Your task to perform on an android device: Clear the cart on target.com. Search for "razer blade" on target.com, select the first entry, and add it to the cart. Image 0: 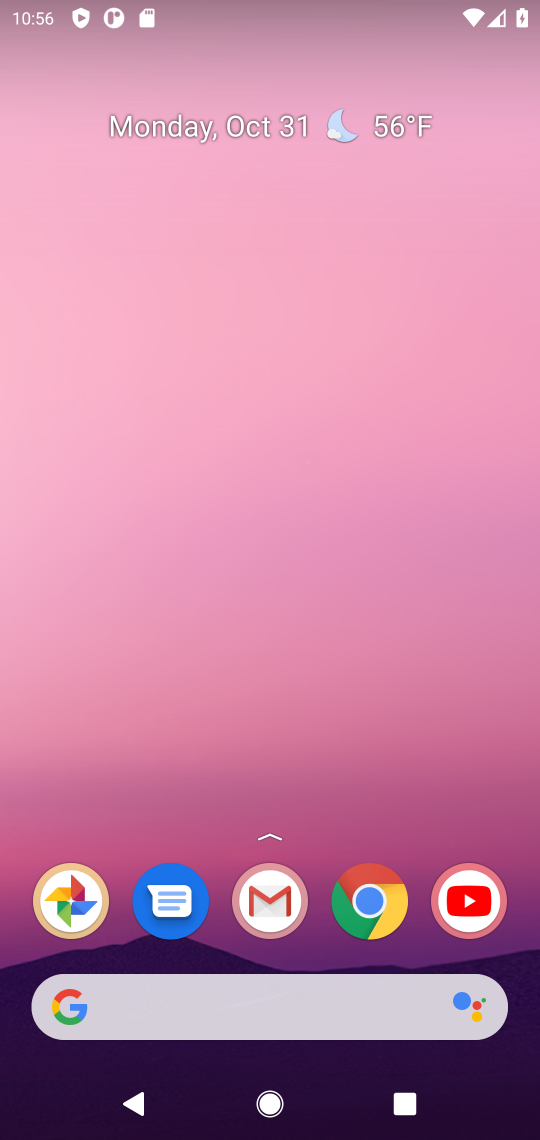
Step 0: drag from (154, 476) to (156, 177)
Your task to perform on an android device: Clear the cart on target.com. Search for "razer blade" on target.com, select the first entry, and add it to the cart. Image 1: 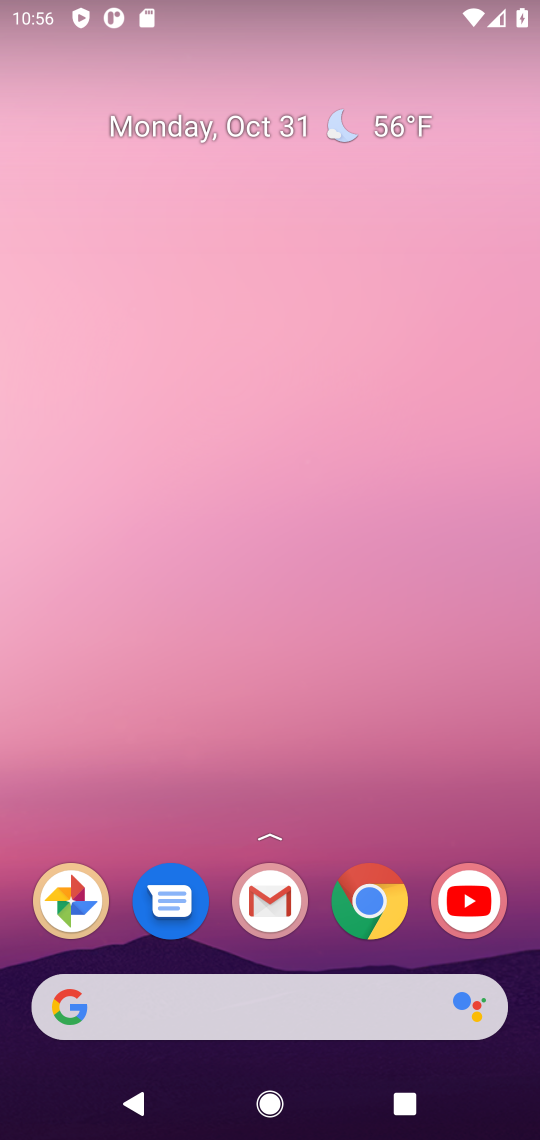
Step 1: drag from (216, 777) to (216, 202)
Your task to perform on an android device: Clear the cart on target.com. Search for "razer blade" on target.com, select the first entry, and add it to the cart. Image 2: 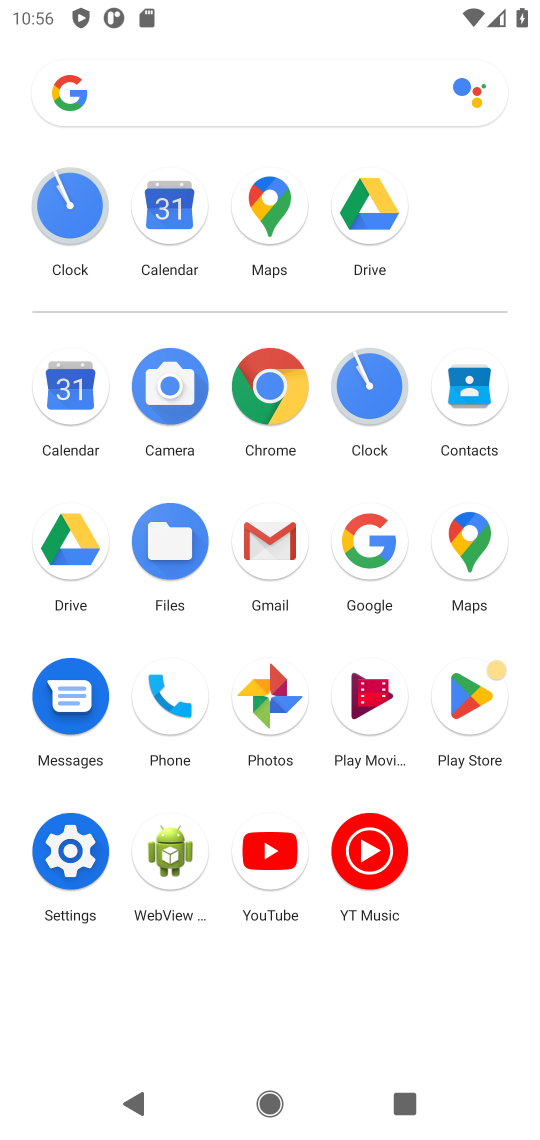
Step 2: click (362, 534)
Your task to perform on an android device: Clear the cart on target.com. Search for "razer blade" on target.com, select the first entry, and add it to the cart. Image 3: 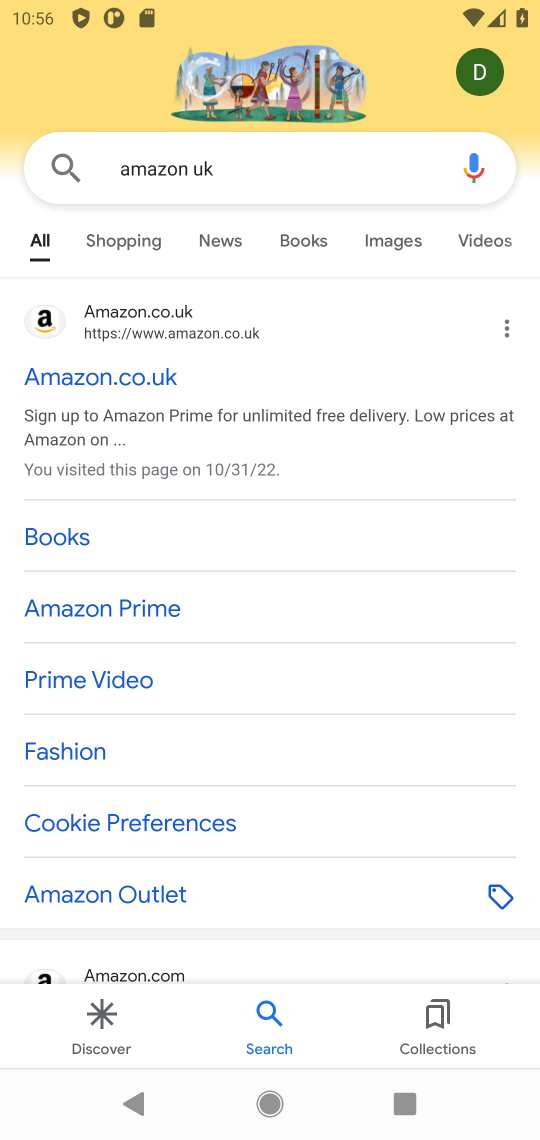
Step 3: click (313, 163)
Your task to perform on an android device: Clear the cart on target.com. Search for "razer blade" on target.com, select the first entry, and add it to the cart. Image 4: 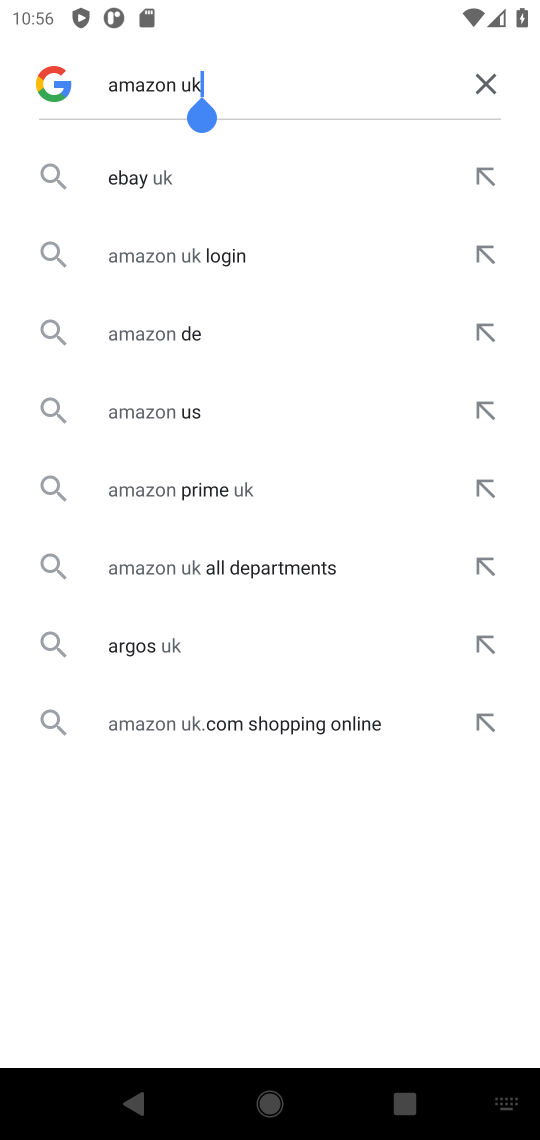
Step 4: click (484, 76)
Your task to perform on an android device: Clear the cart on target.com. Search for "razer blade" on target.com, select the first entry, and add it to the cart. Image 5: 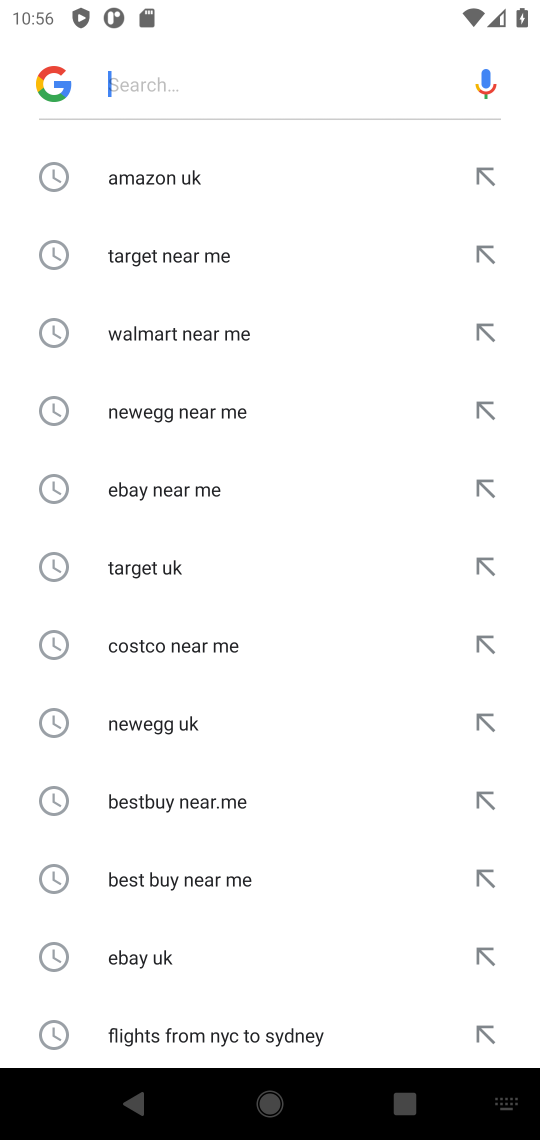
Step 5: click (202, 86)
Your task to perform on an android device: Clear the cart on target.com. Search for "razer blade" on target.com, select the first entry, and add it to the cart. Image 6: 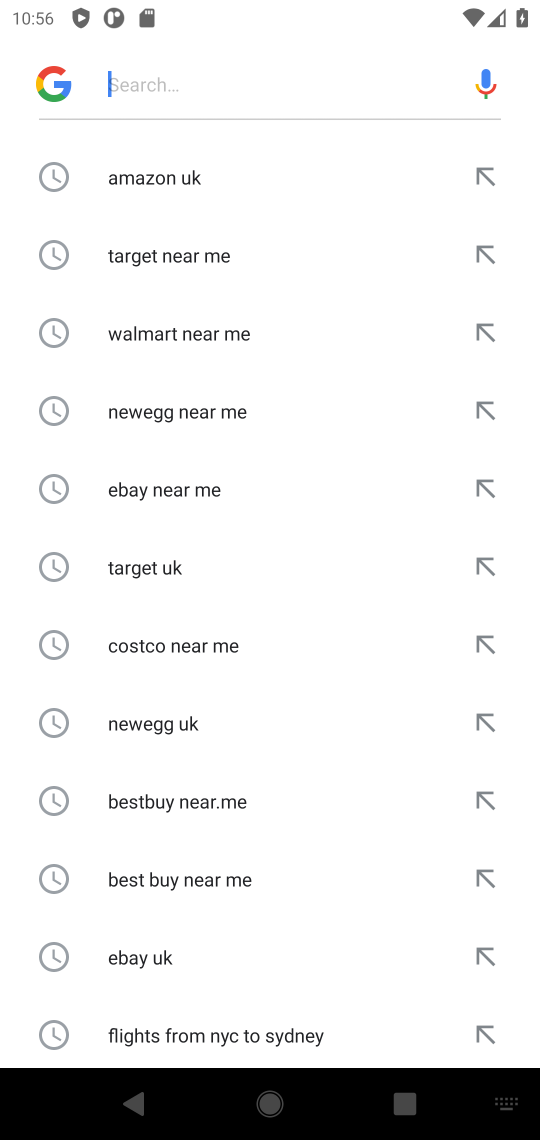
Step 6: type "target "
Your task to perform on an android device: Clear the cart on target.com. Search for "razer blade" on target.com, select the first entry, and add it to the cart. Image 7: 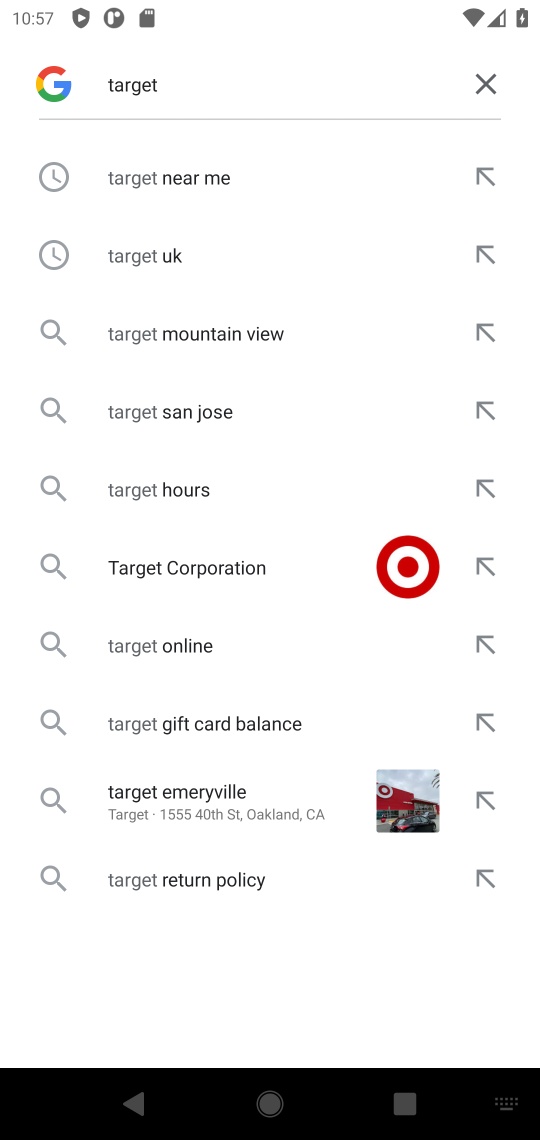
Step 7: click (141, 169)
Your task to perform on an android device: Clear the cart on target.com. Search for "razer blade" on target.com, select the first entry, and add it to the cart. Image 8: 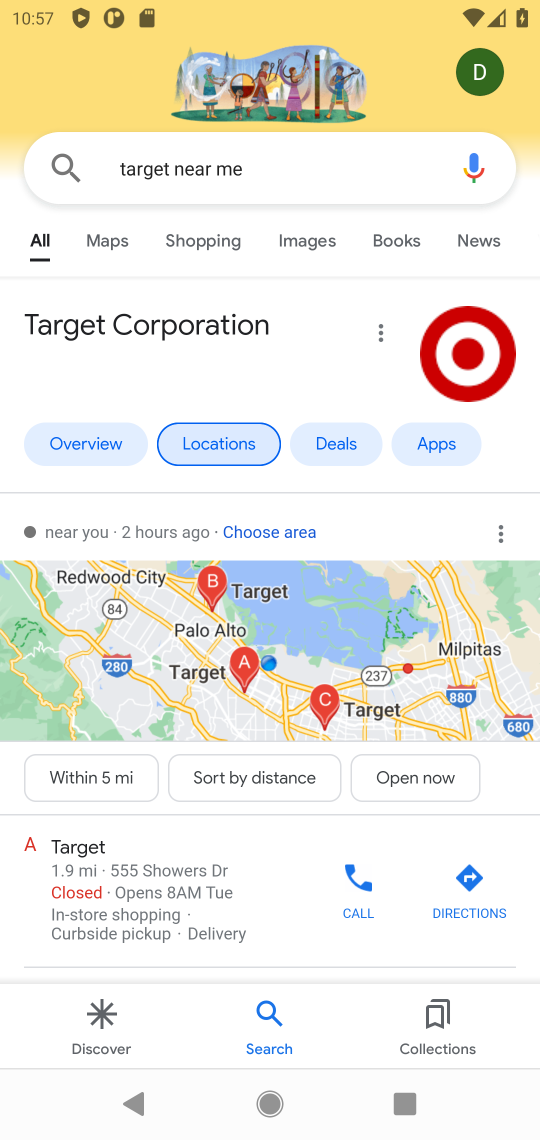
Step 8: drag from (250, 853) to (334, 275)
Your task to perform on an android device: Clear the cart on target.com. Search for "razer blade" on target.com, select the first entry, and add it to the cart. Image 9: 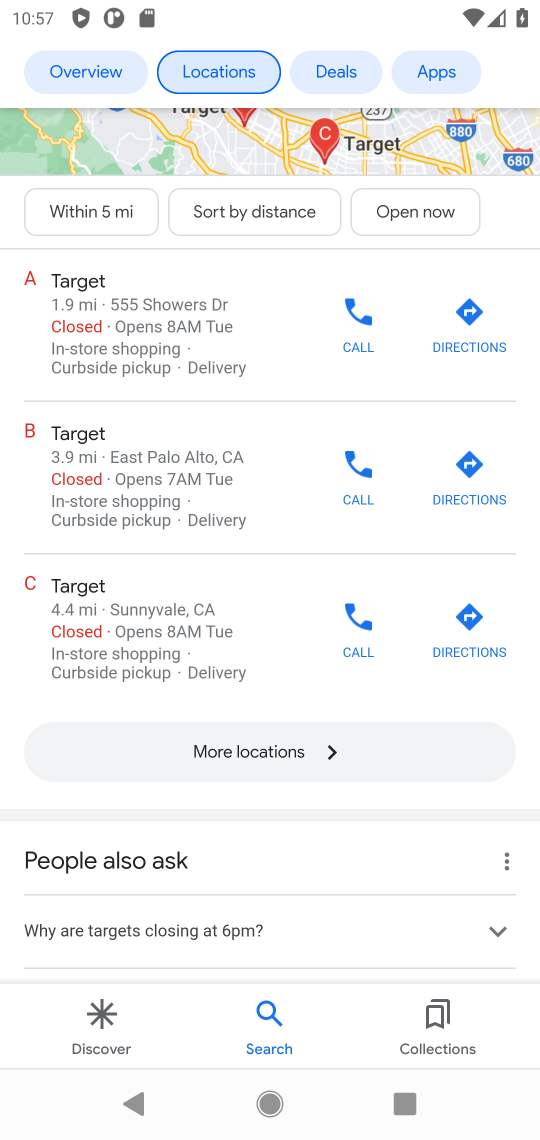
Step 9: drag from (161, 810) to (294, 261)
Your task to perform on an android device: Clear the cart on target.com. Search for "razer blade" on target.com, select the first entry, and add it to the cart. Image 10: 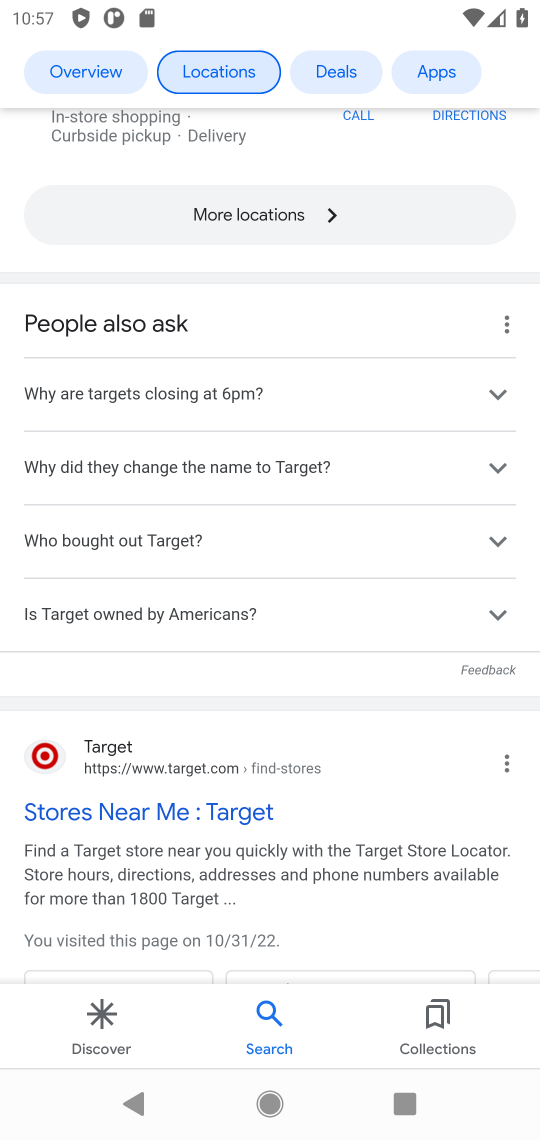
Step 10: click (39, 759)
Your task to perform on an android device: Clear the cart on target.com. Search for "razer blade" on target.com, select the first entry, and add it to the cart. Image 11: 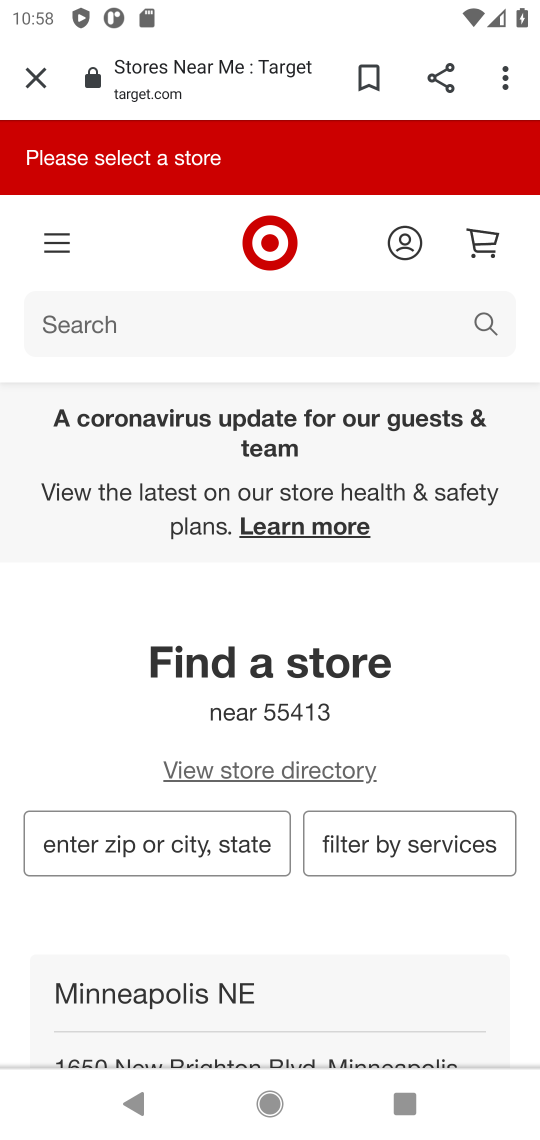
Step 11: click (278, 317)
Your task to perform on an android device: Clear the cart on target.com. Search for "razer blade" on target.com, select the first entry, and add it to the cart. Image 12: 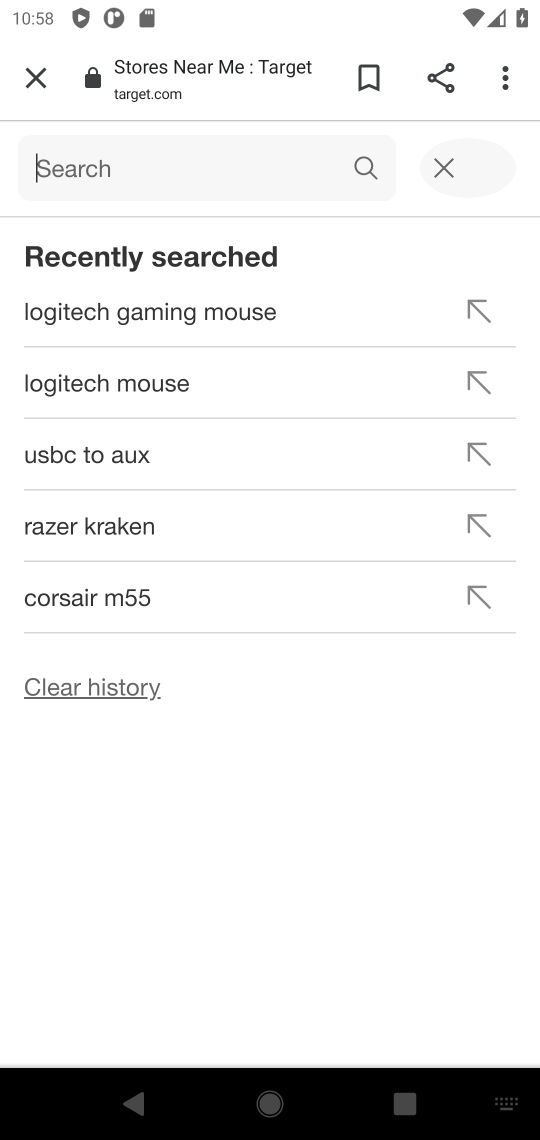
Step 12: type "razer blade "
Your task to perform on an android device: Clear the cart on target.com. Search for "razer blade" on target.com, select the first entry, and add it to the cart. Image 13: 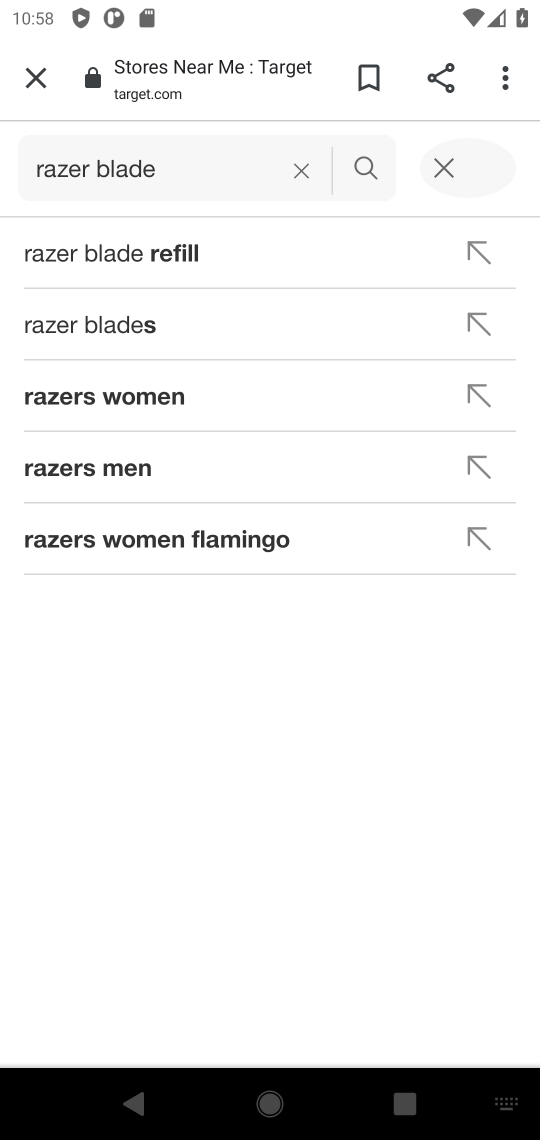
Step 13: click (137, 319)
Your task to perform on an android device: Clear the cart on target.com. Search for "razer blade" on target.com, select the first entry, and add it to the cart. Image 14: 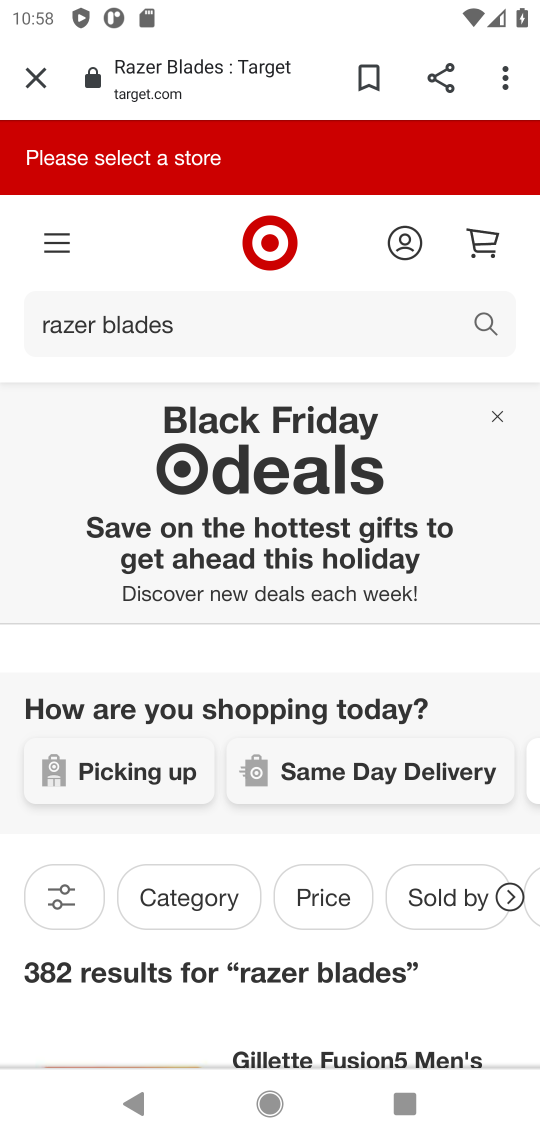
Step 14: drag from (287, 927) to (281, 379)
Your task to perform on an android device: Clear the cart on target.com. Search for "razer blade" on target.com, select the first entry, and add it to the cart. Image 15: 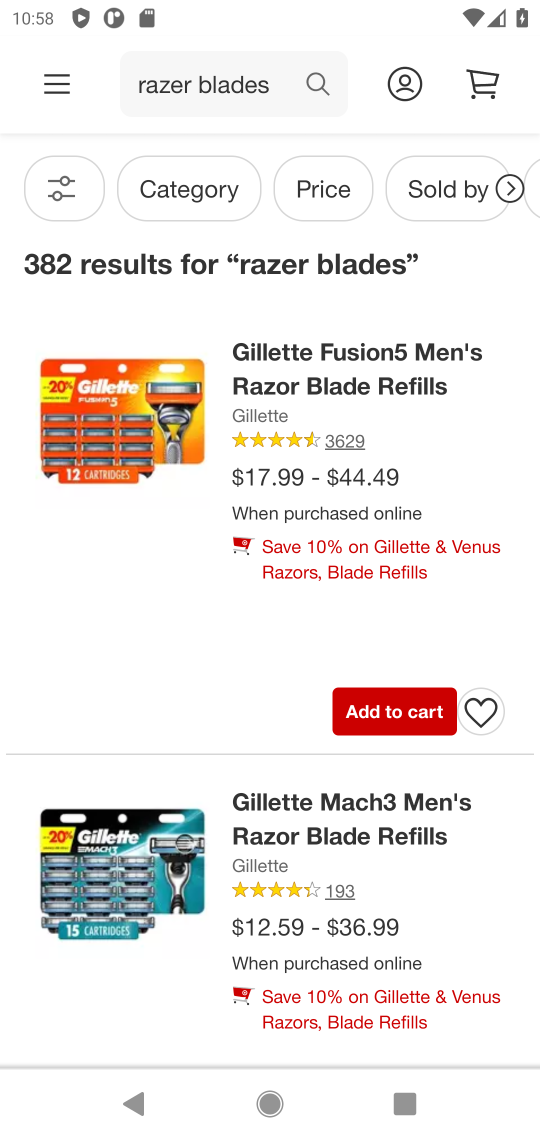
Step 15: click (392, 693)
Your task to perform on an android device: Clear the cart on target.com. Search for "razer blade" on target.com, select the first entry, and add it to the cart. Image 16: 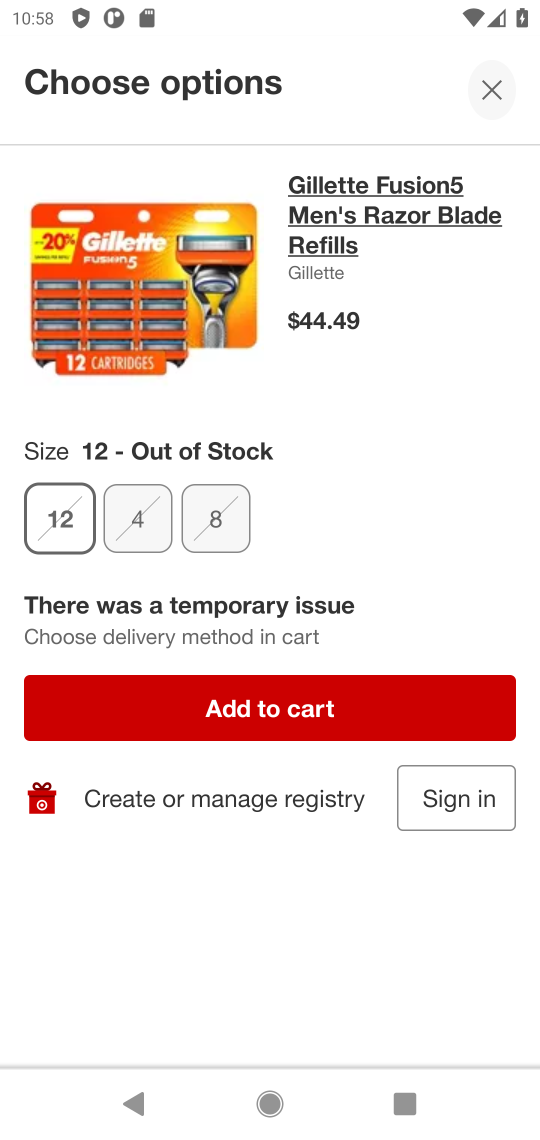
Step 16: click (307, 698)
Your task to perform on an android device: Clear the cart on target.com. Search for "razer blade" on target.com, select the first entry, and add it to the cart. Image 17: 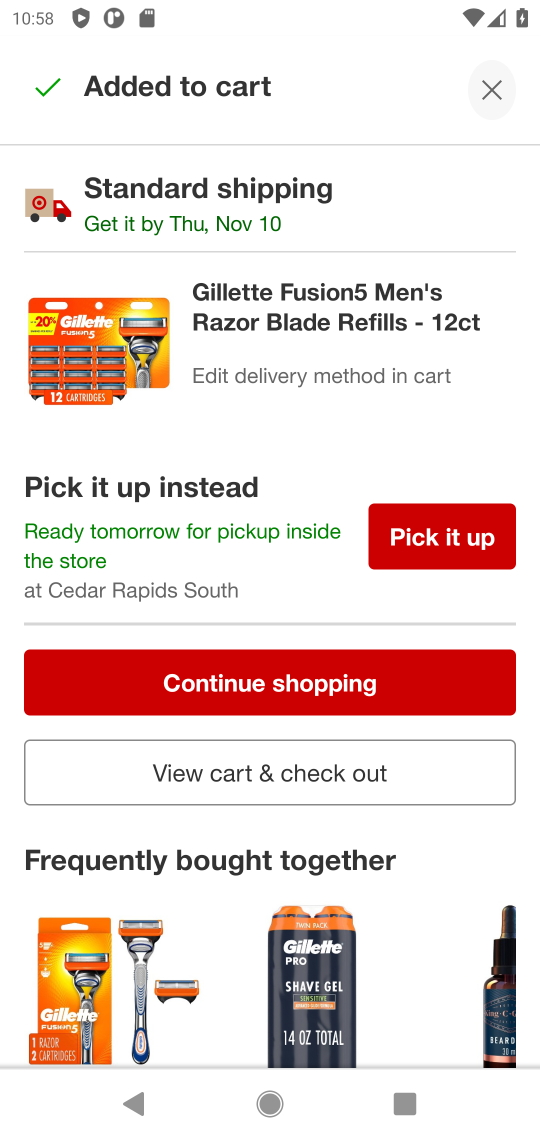
Step 17: task complete